Your task to perform on an android device: delete browsing data in the chrome app Image 0: 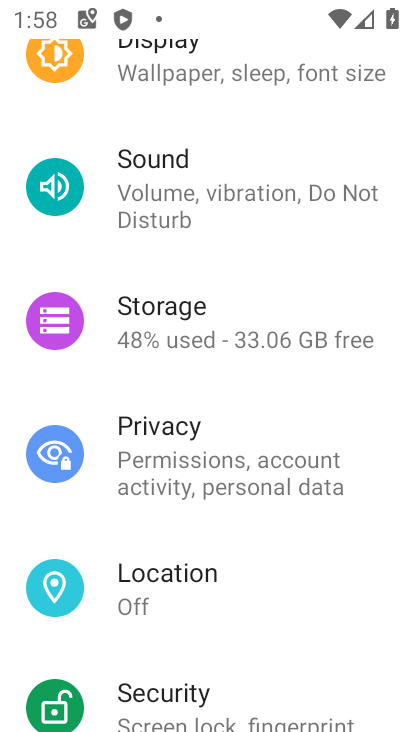
Step 0: drag from (344, 637) to (338, 570)
Your task to perform on an android device: delete browsing data in the chrome app Image 1: 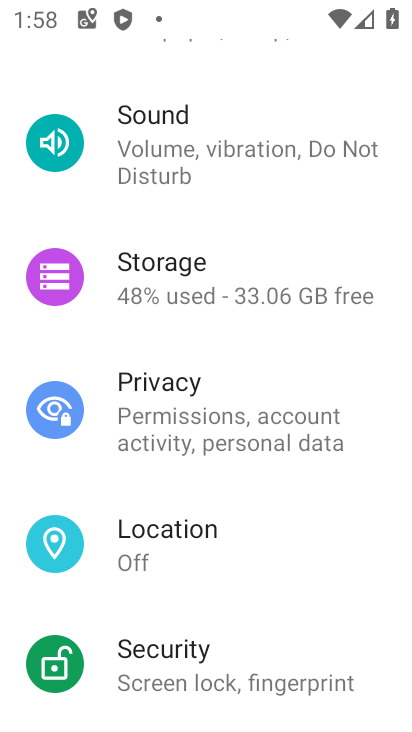
Step 1: press home button
Your task to perform on an android device: delete browsing data in the chrome app Image 2: 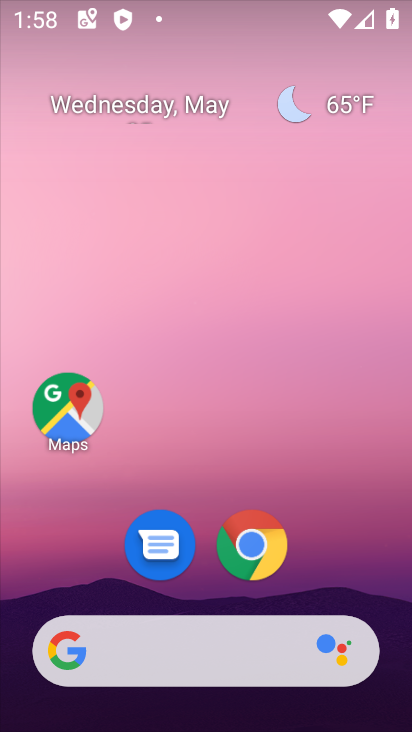
Step 2: click (278, 544)
Your task to perform on an android device: delete browsing data in the chrome app Image 3: 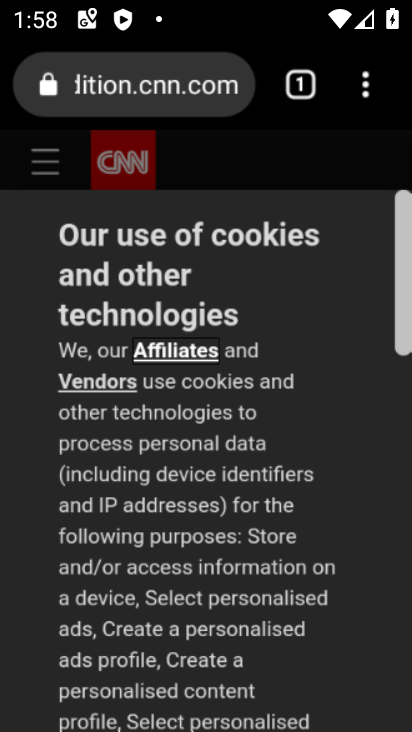
Step 3: click (371, 76)
Your task to perform on an android device: delete browsing data in the chrome app Image 4: 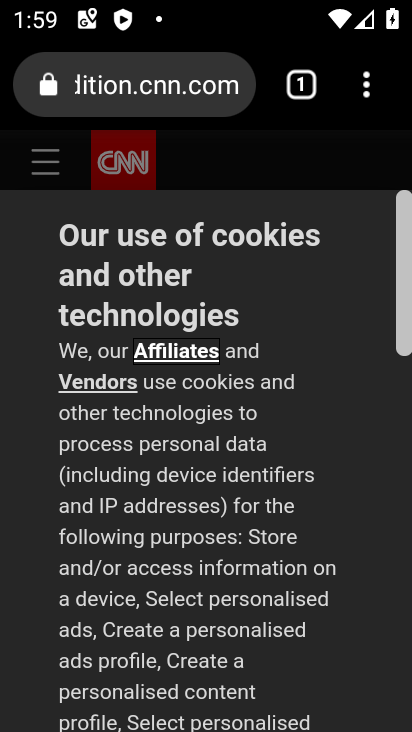
Step 4: click (375, 100)
Your task to perform on an android device: delete browsing data in the chrome app Image 5: 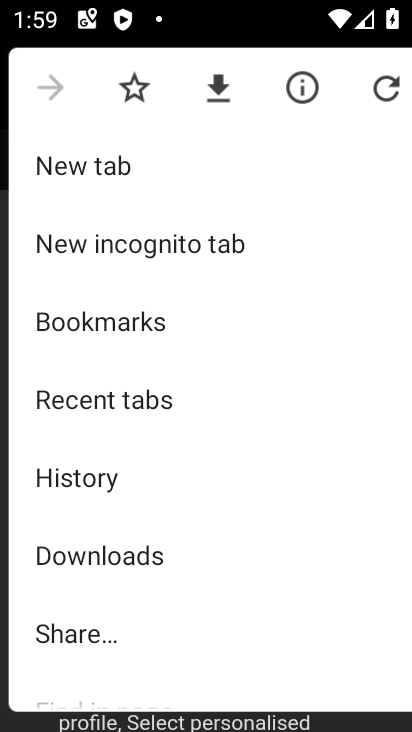
Step 5: click (129, 463)
Your task to perform on an android device: delete browsing data in the chrome app Image 6: 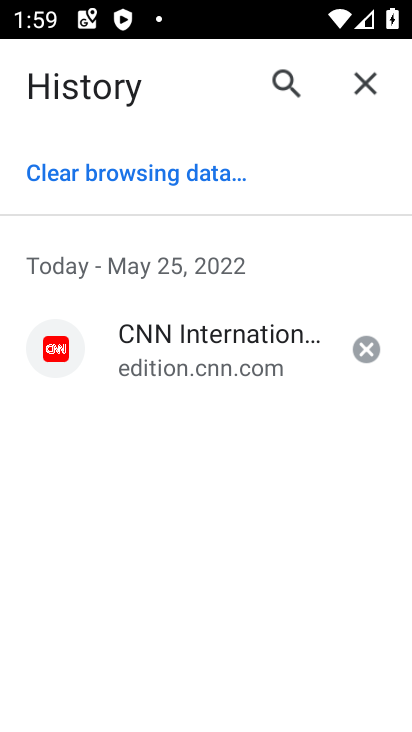
Step 6: click (116, 157)
Your task to perform on an android device: delete browsing data in the chrome app Image 7: 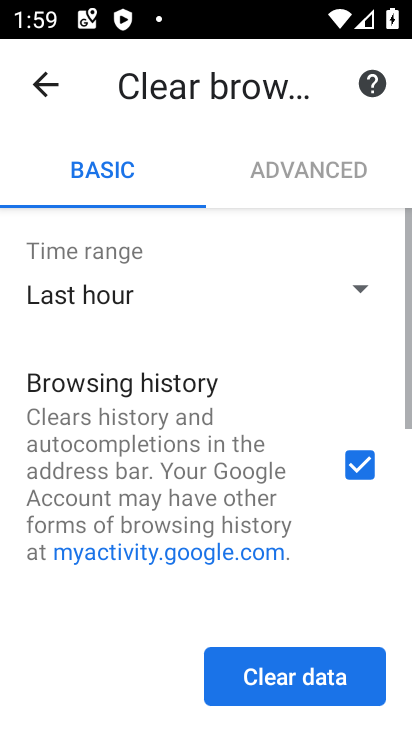
Step 7: click (320, 666)
Your task to perform on an android device: delete browsing data in the chrome app Image 8: 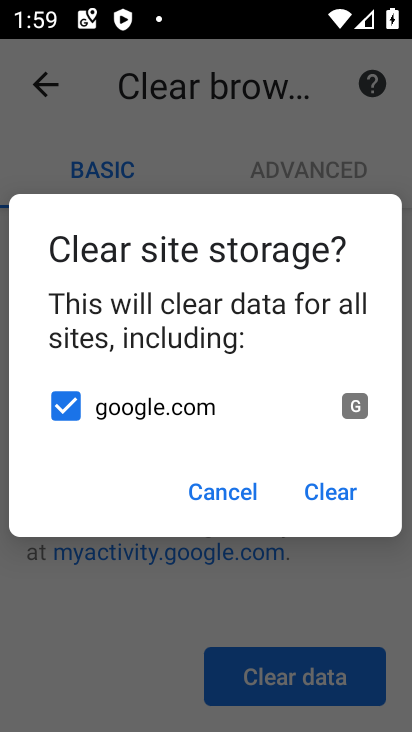
Step 8: click (359, 495)
Your task to perform on an android device: delete browsing data in the chrome app Image 9: 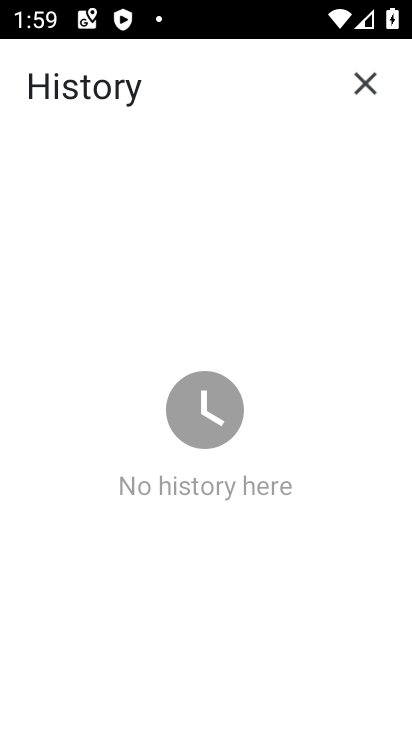
Step 9: task complete